Your task to perform on an android device: toggle notification dots Image 0: 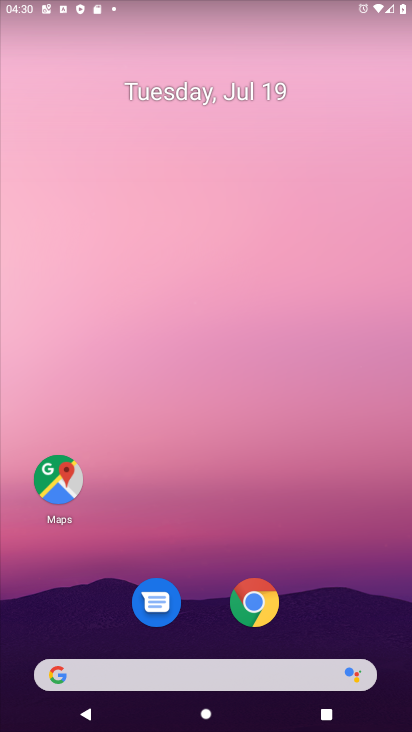
Step 0: drag from (187, 620) to (140, 19)
Your task to perform on an android device: toggle notification dots Image 1: 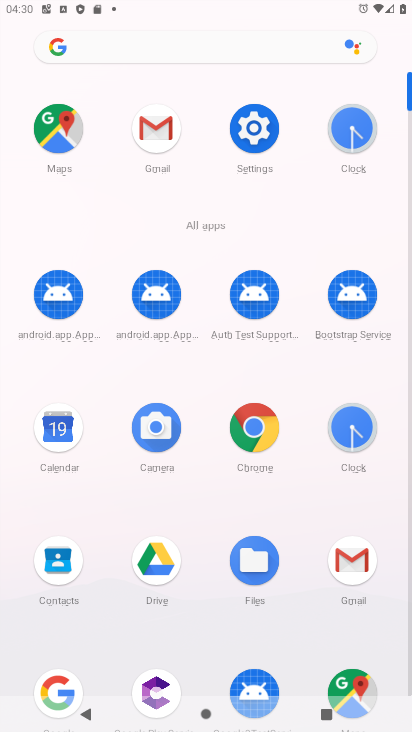
Step 1: click (252, 159)
Your task to perform on an android device: toggle notification dots Image 2: 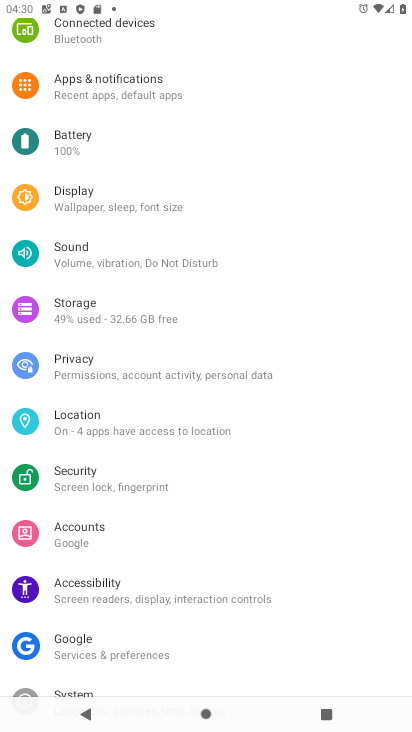
Step 2: click (157, 101)
Your task to perform on an android device: toggle notification dots Image 3: 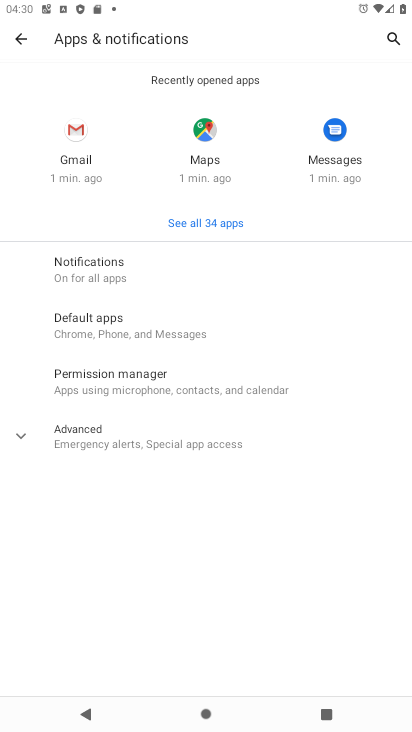
Step 3: click (148, 294)
Your task to perform on an android device: toggle notification dots Image 4: 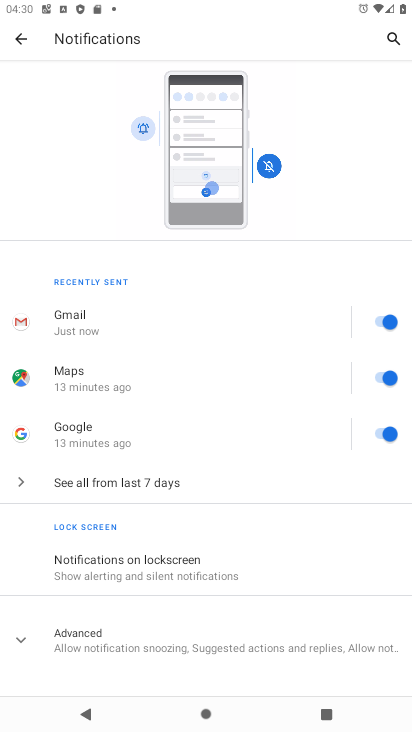
Step 4: drag from (163, 652) to (227, 262)
Your task to perform on an android device: toggle notification dots Image 5: 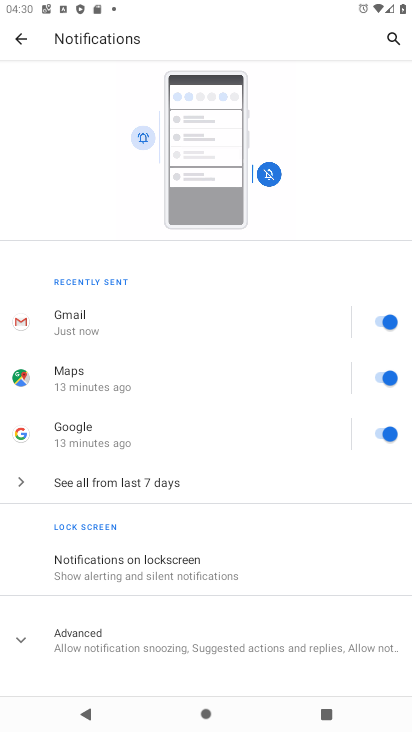
Step 5: click (122, 576)
Your task to perform on an android device: toggle notification dots Image 6: 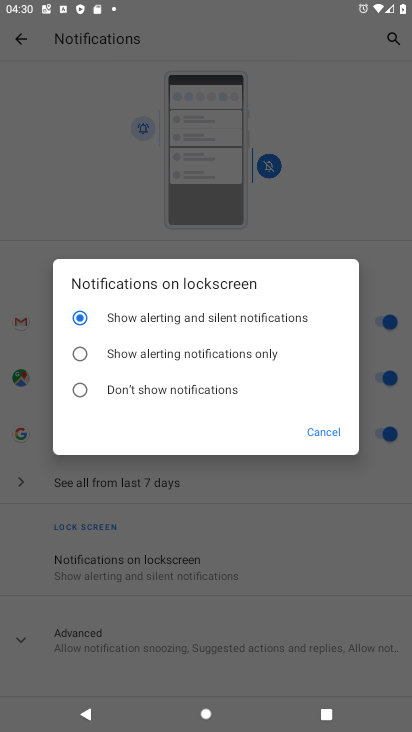
Step 6: click (200, 572)
Your task to perform on an android device: toggle notification dots Image 7: 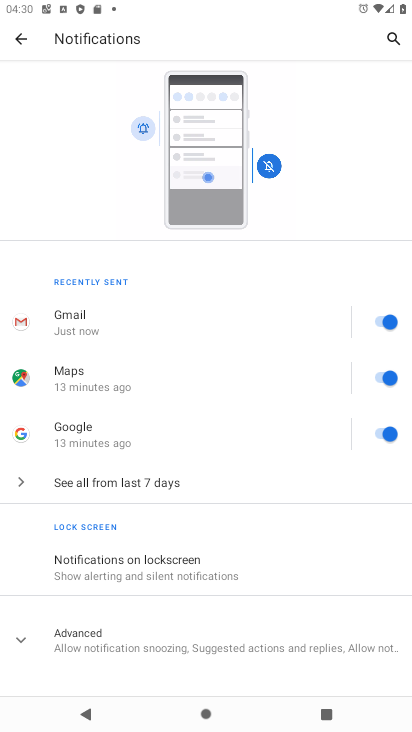
Step 7: click (105, 611)
Your task to perform on an android device: toggle notification dots Image 8: 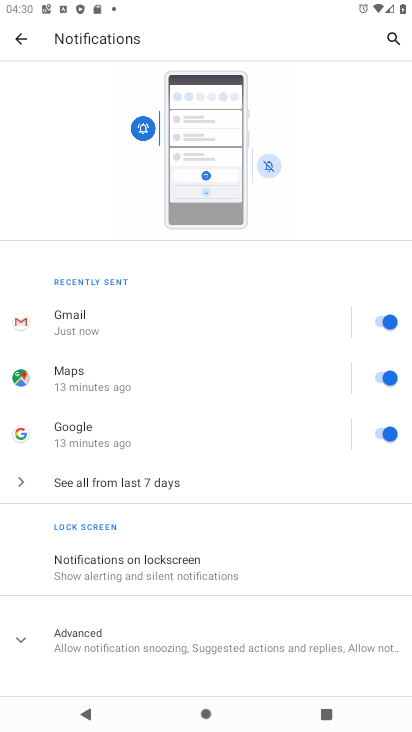
Step 8: click (140, 620)
Your task to perform on an android device: toggle notification dots Image 9: 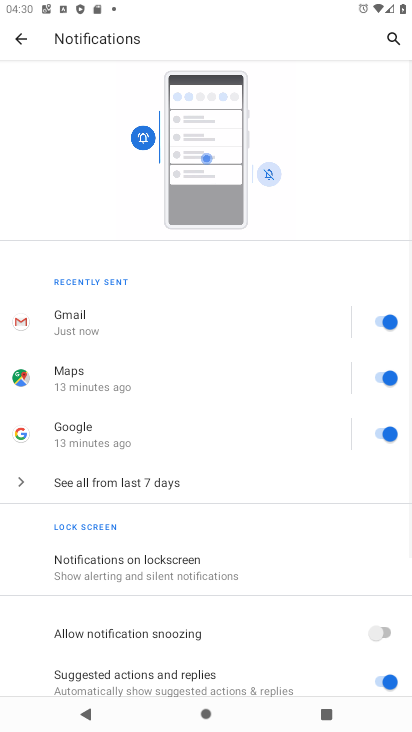
Step 9: drag from (173, 402) to (201, 5)
Your task to perform on an android device: toggle notification dots Image 10: 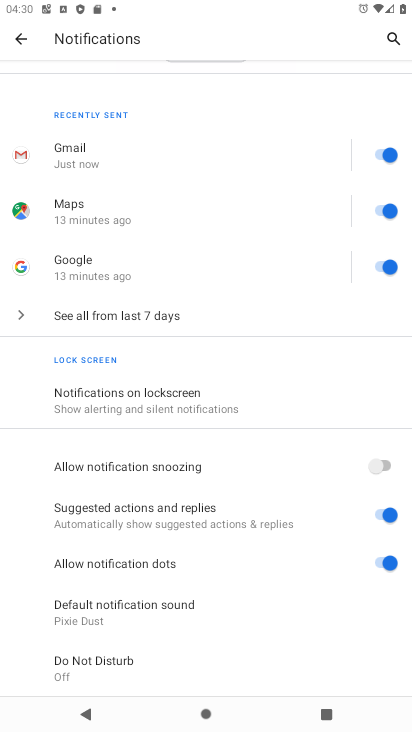
Step 10: click (392, 567)
Your task to perform on an android device: toggle notification dots Image 11: 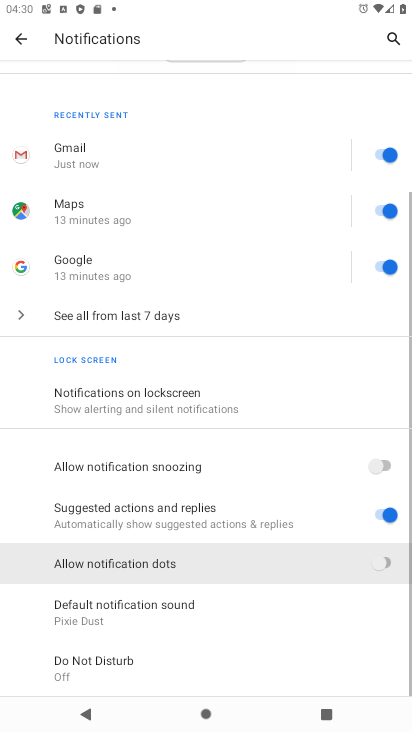
Step 11: click (392, 567)
Your task to perform on an android device: toggle notification dots Image 12: 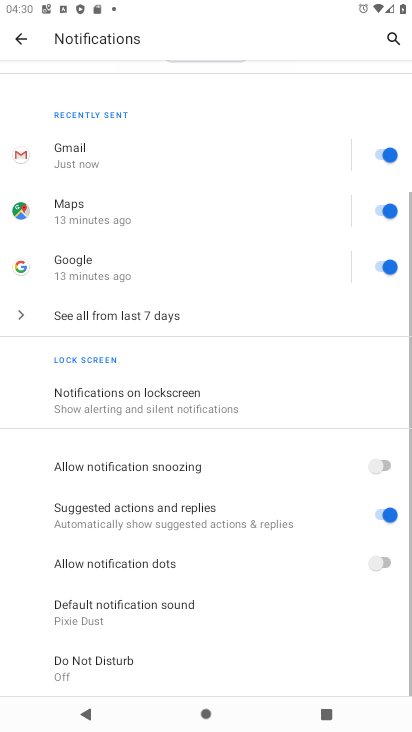
Step 12: click (392, 567)
Your task to perform on an android device: toggle notification dots Image 13: 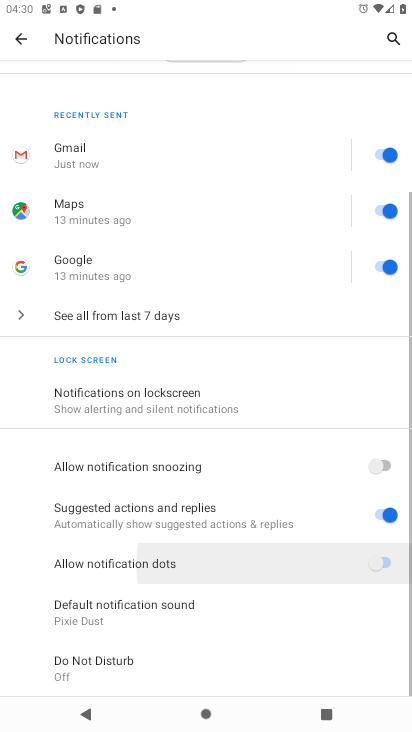
Step 13: click (392, 567)
Your task to perform on an android device: toggle notification dots Image 14: 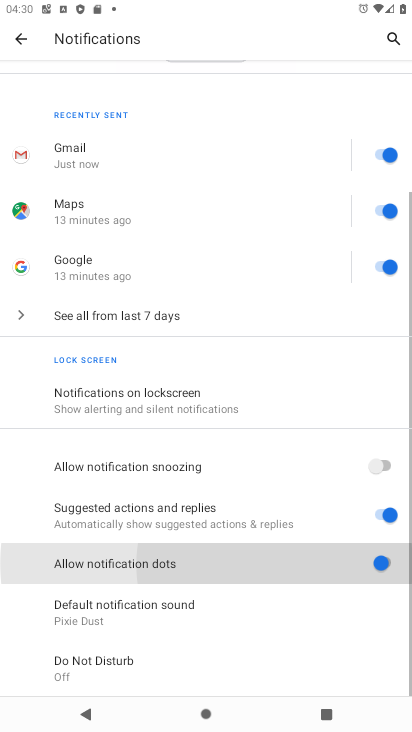
Step 14: click (392, 567)
Your task to perform on an android device: toggle notification dots Image 15: 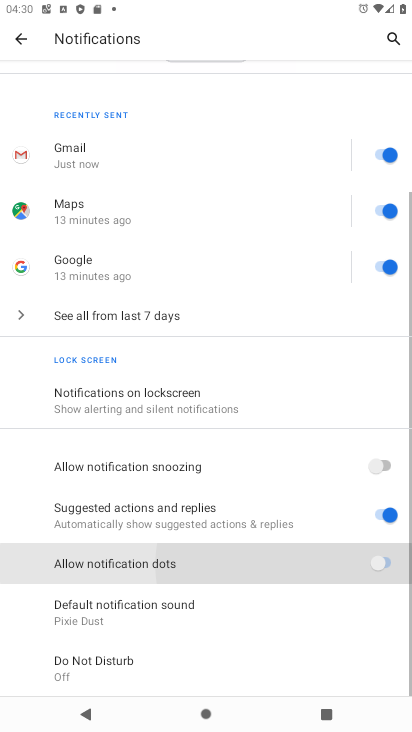
Step 15: click (392, 567)
Your task to perform on an android device: toggle notification dots Image 16: 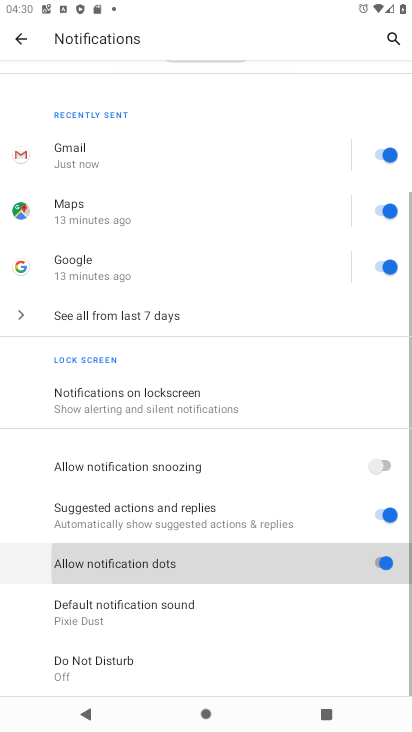
Step 16: click (392, 567)
Your task to perform on an android device: toggle notification dots Image 17: 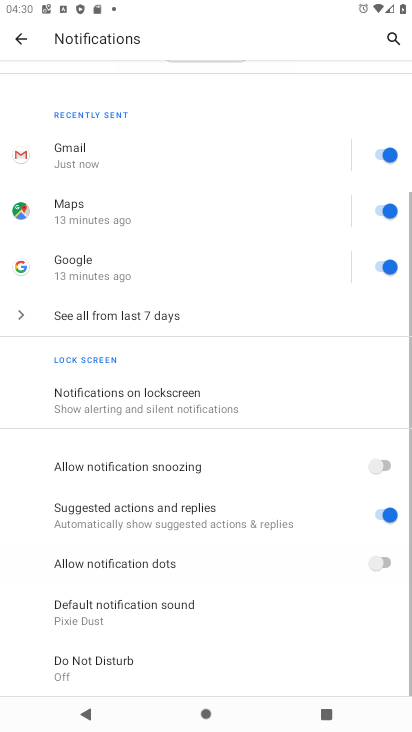
Step 17: click (392, 567)
Your task to perform on an android device: toggle notification dots Image 18: 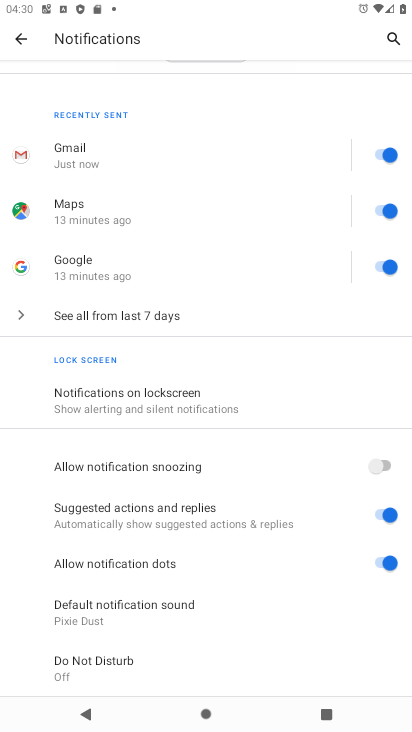
Step 18: task complete